Your task to perform on an android device: Do I have any events tomorrow? Image 0: 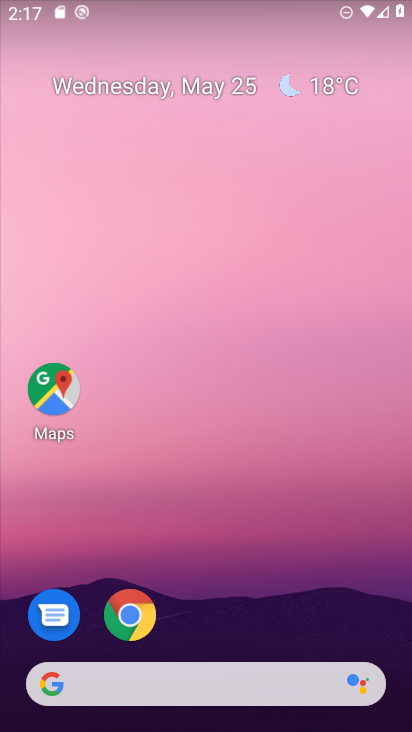
Step 0: drag from (245, 560) to (264, 17)
Your task to perform on an android device: Do I have any events tomorrow? Image 1: 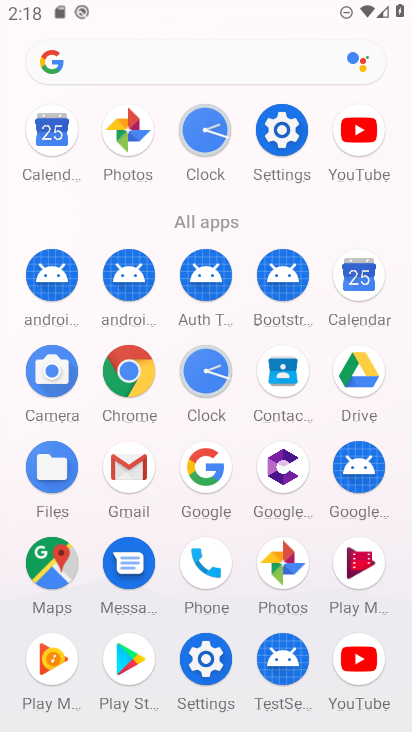
Step 1: click (360, 279)
Your task to perform on an android device: Do I have any events tomorrow? Image 2: 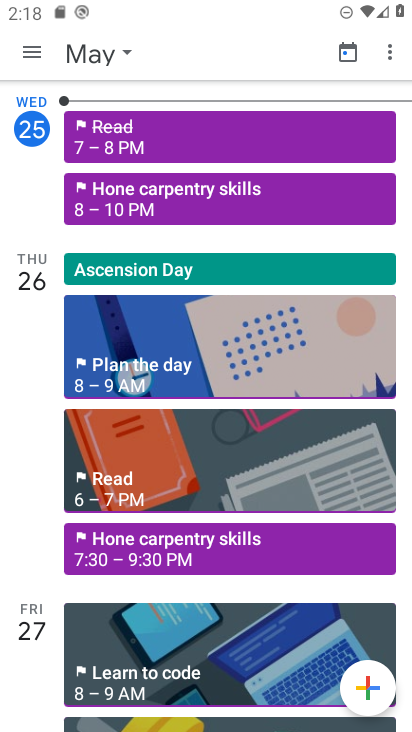
Step 2: task complete